Your task to perform on an android device: delete the emails in spam in the gmail app Image 0: 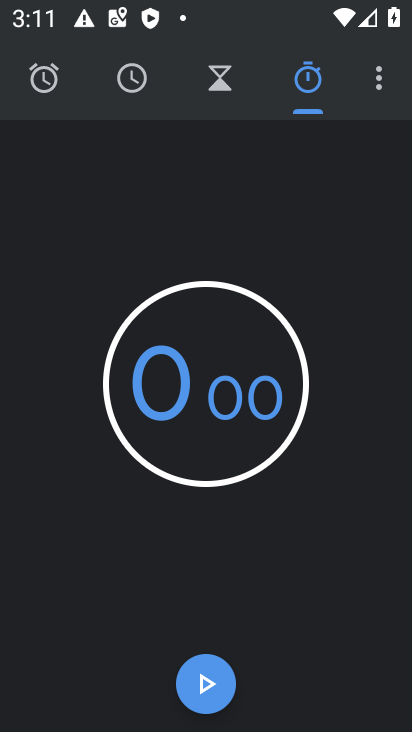
Step 0: press home button
Your task to perform on an android device: delete the emails in spam in the gmail app Image 1: 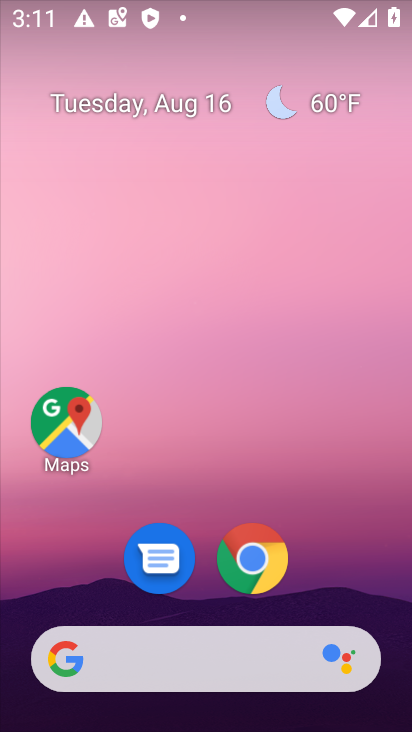
Step 1: drag from (387, 604) to (338, 124)
Your task to perform on an android device: delete the emails in spam in the gmail app Image 2: 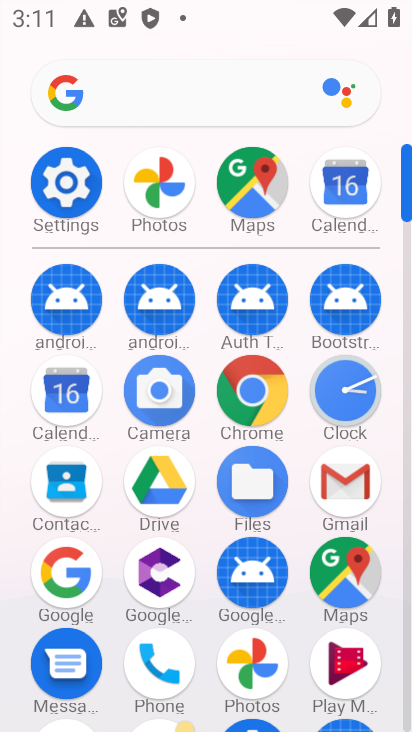
Step 2: click (344, 480)
Your task to perform on an android device: delete the emails in spam in the gmail app Image 3: 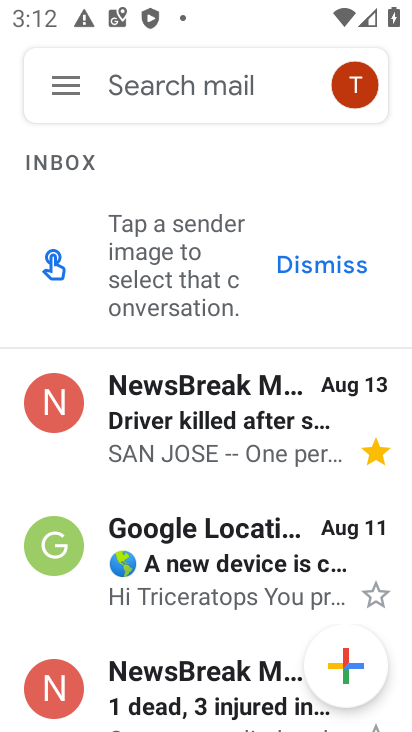
Step 3: drag from (216, 498) to (272, 71)
Your task to perform on an android device: delete the emails in spam in the gmail app Image 4: 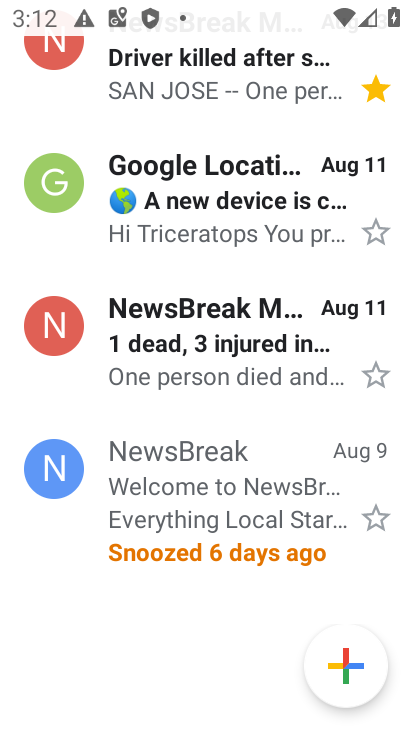
Step 4: drag from (175, 107) to (148, 450)
Your task to perform on an android device: delete the emails in spam in the gmail app Image 5: 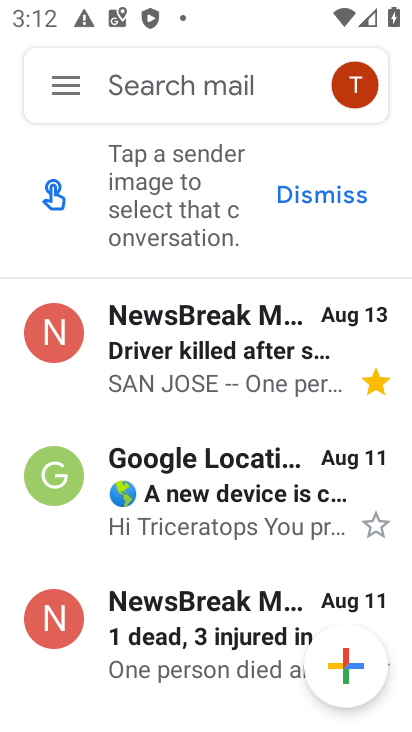
Step 5: click (62, 84)
Your task to perform on an android device: delete the emails in spam in the gmail app Image 6: 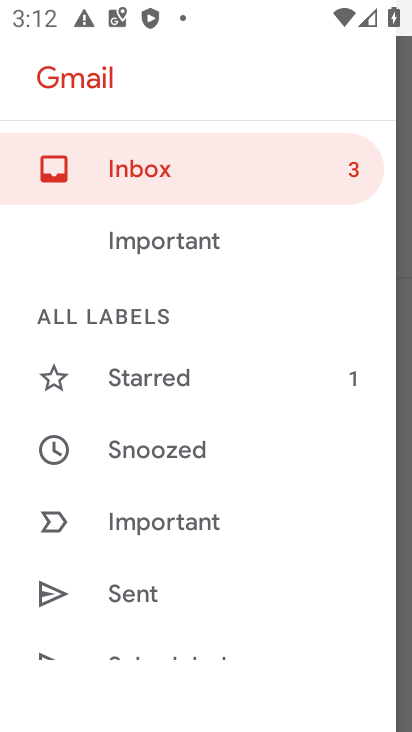
Step 6: drag from (262, 584) to (261, 274)
Your task to perform on an android device: delete the emails in spam in the gmail app Image 7: 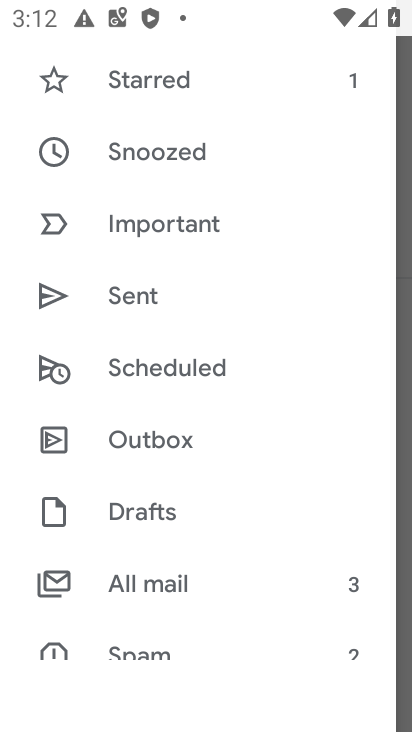
Step 7: drag from (246, 589) to (267, 321)
Your task to perform on an android device: delete the emails in spam in the gmail app Image 8: 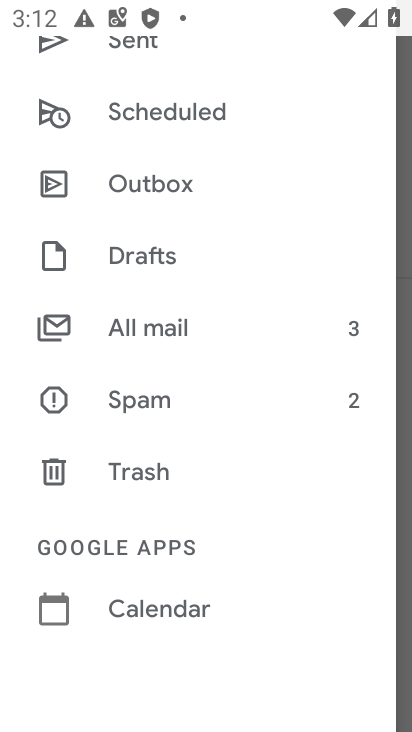
Step 8: click (150, 401)
Your task to perform on an android device: delete the emails in spam in the gmail app Image 9: 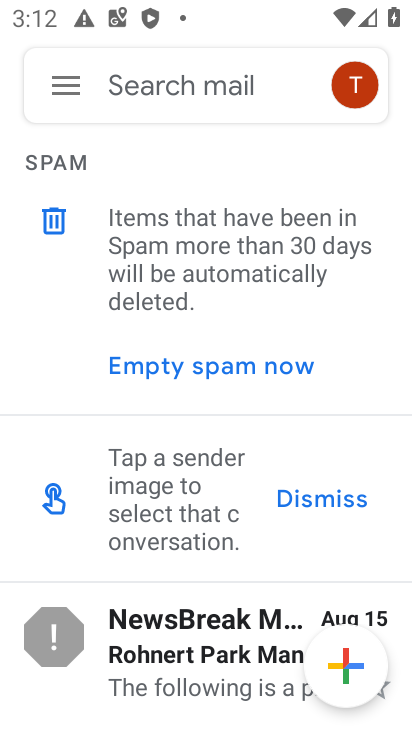
Step 9: drag from (242, 553) to (252, 407)
Your task to perform on an android device: delete the emails in spam in the gmail app Image 10: 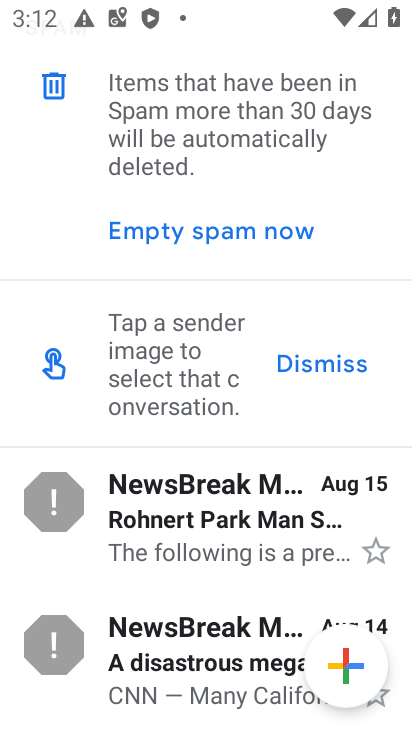
Step 10: click (194, 233)
Your task to perform on an android device: delete the emails in spam in the gmail app Image 11: 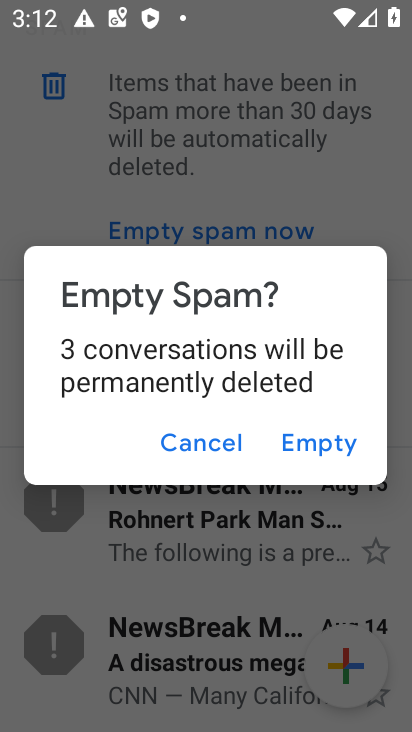
Step 11: click (320, 442)
Your task to perform on an android device: delete the emails in spam in the gmail app Image 12: 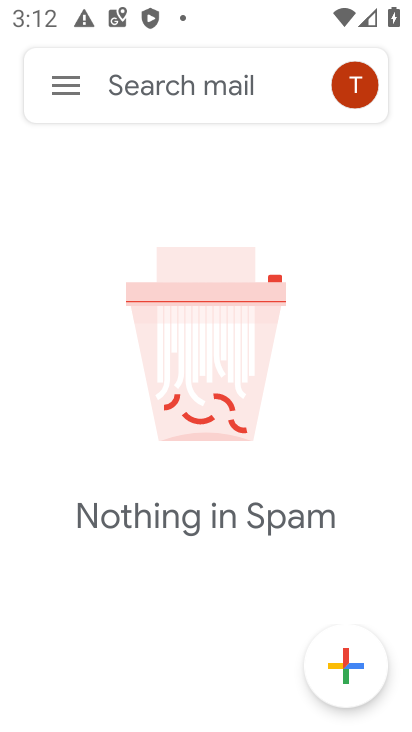
Step 12: task complete